Your task to perform on an android device: Go to Reddit.com Image 0: 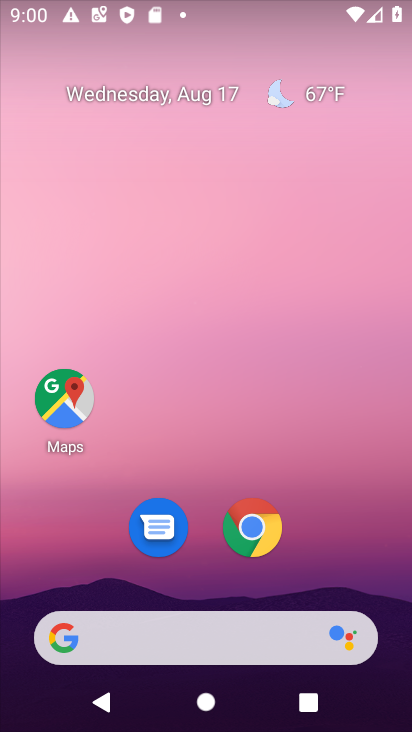
Step 0: click (165, 633)
Your task to perform on an android device: Go to Reddit.com Image 1: 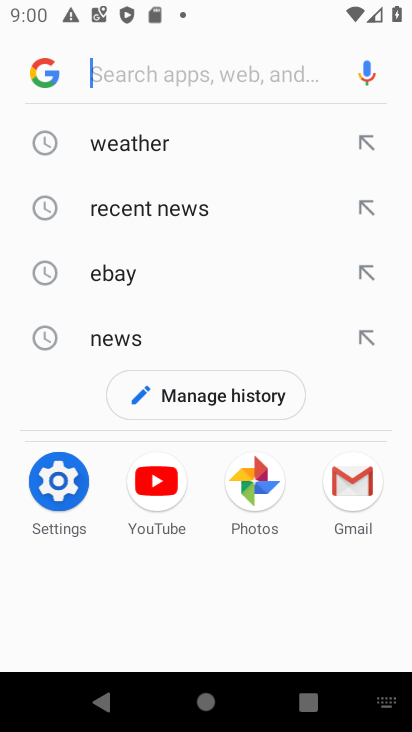
Step 1: type "reddit"
Your task to perform on an android device: Go to Reddit.com Image 2: 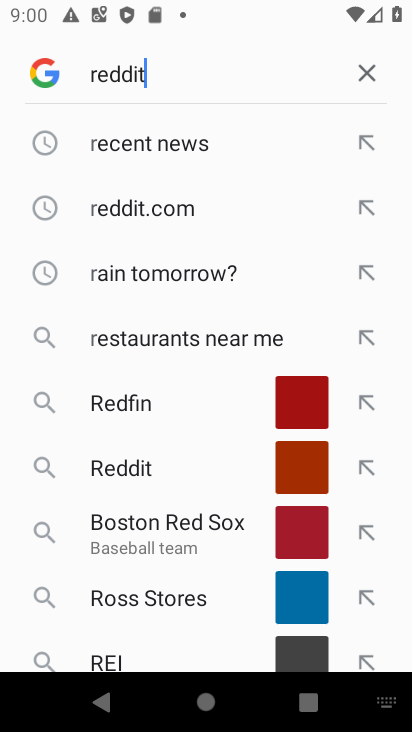
Step 2: type ""
Your task to perform on an android device: Go to Reddit.com Image 3: 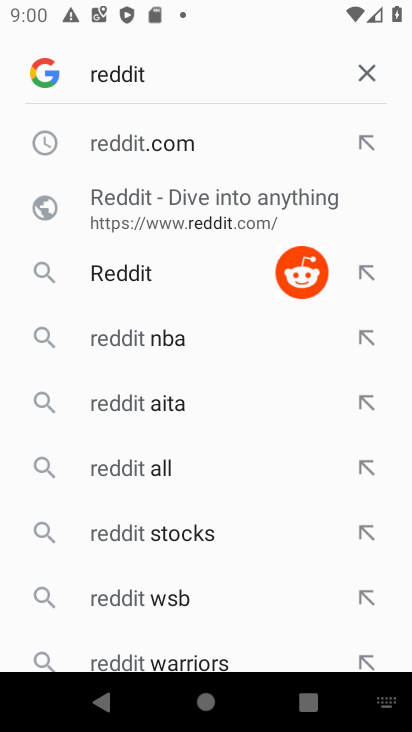
Step 3: click (242, 268)
Your task to perform on an android device: Go to Reddit.com Image 4: 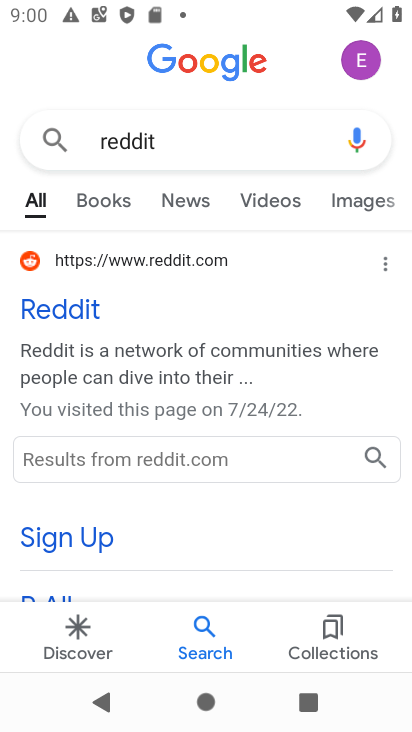
Step 4: click (73, 323)
Your task to perform on an android device: Go to Reddit.com Image 5: 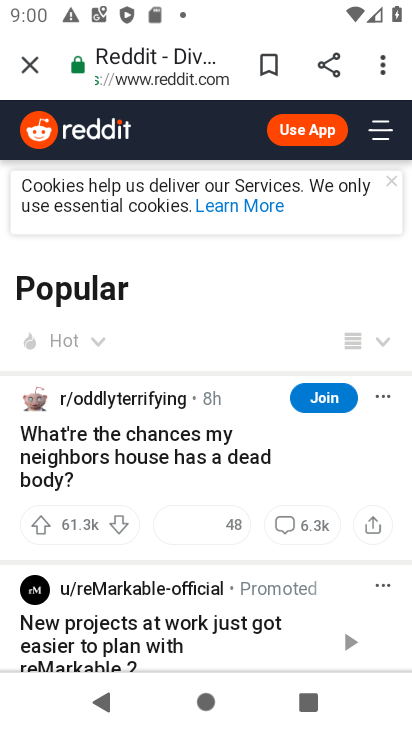
Step 5: task complete